Your task to perform on an android device: check android version Image 0: 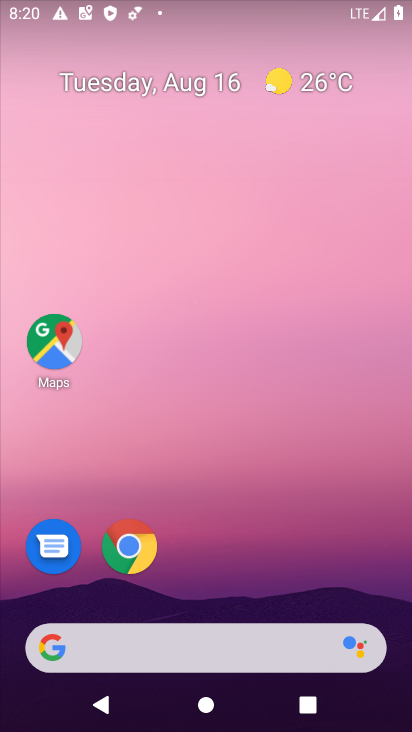
Step 0: drag from (250, 480) to (232, 9)
Your task to perform on an android device: check android version Image 1: 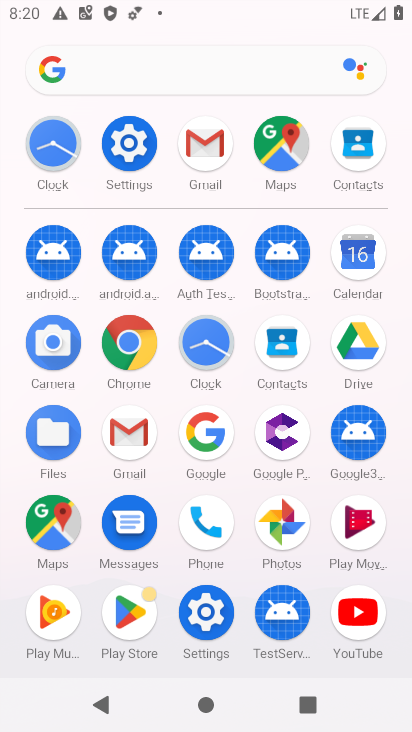
Step 1: click (132, 138)
Your task to perform on an android device: check android version Image 2: 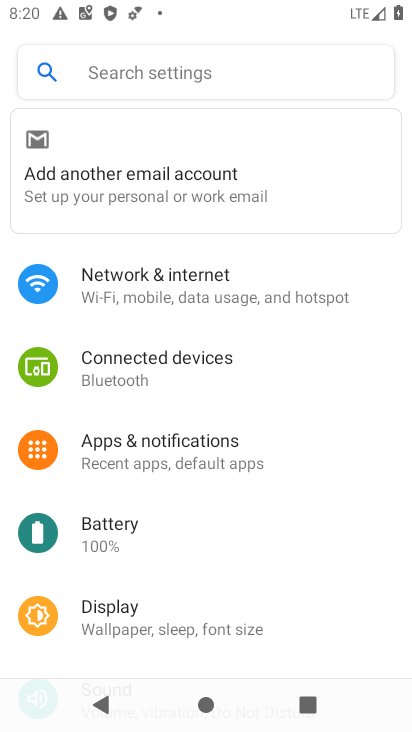
Step 2: drag from (208, 487) to (246, 7)
Your task to perform on an android device: check android version Image 3: 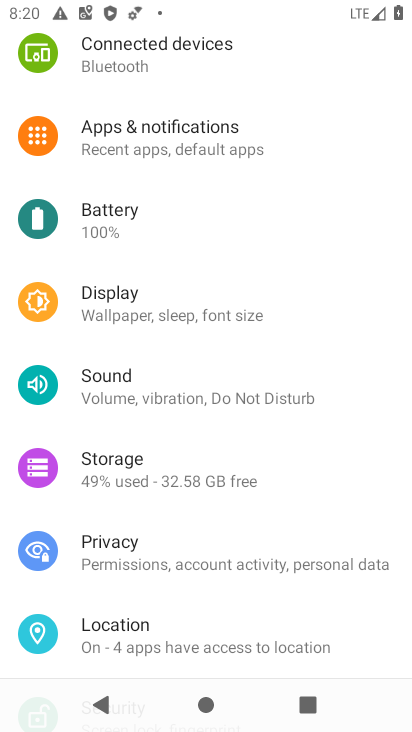
Step 3: drag from (220, 471) to (246, 5)
Your task to perform on an android device: check android version Image 4: 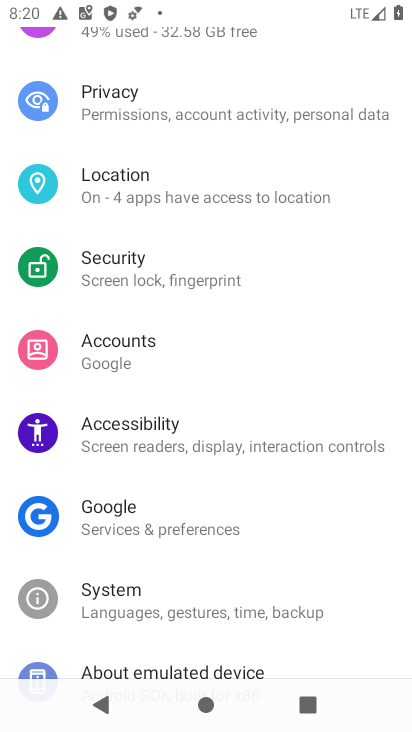
Step 4: drag from (178, 563) to (200, 310)
Your task to perform on an android device: check android version Image 5: 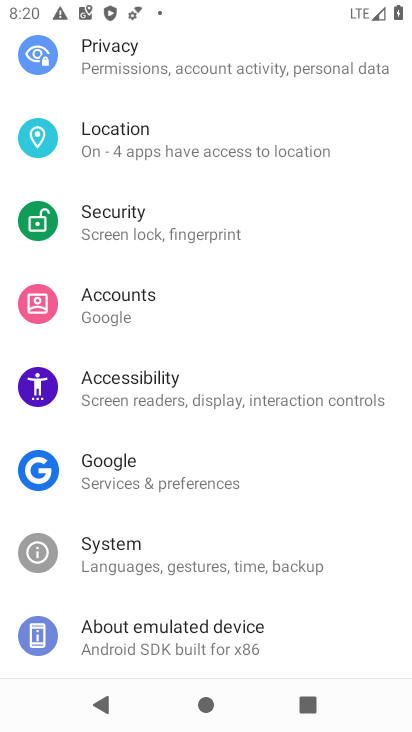
Step 5: click (179, 636)
Your task to perform on an android device: check android version Image 6: 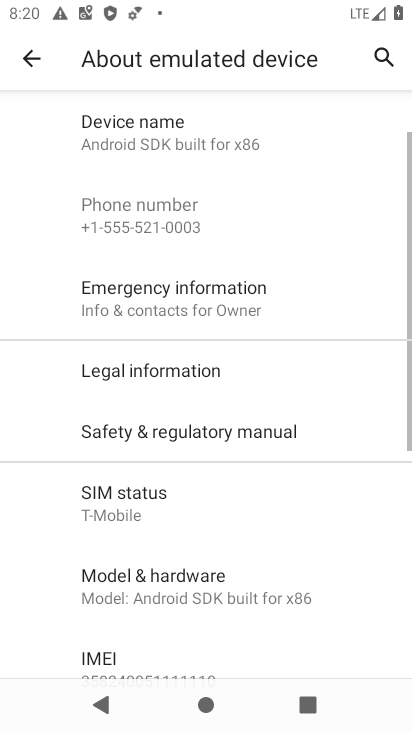
Step 6: drag from (198, 505) to (203, 63)
Your task to perform on an android device: check android version Image 7: 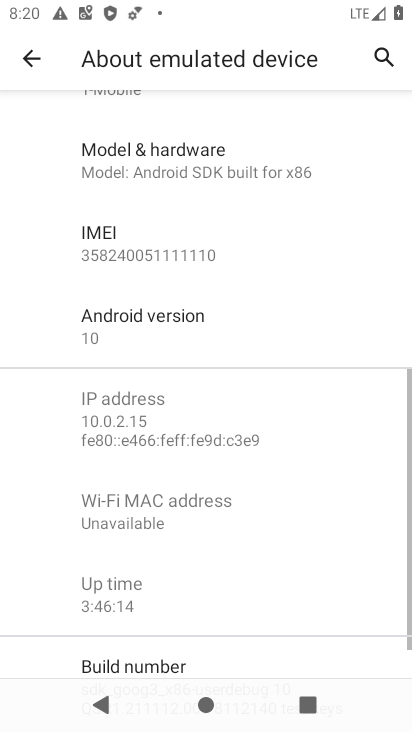
Step 7: click (161, 334)
Your task to perform on an android device: check android version Image 8: 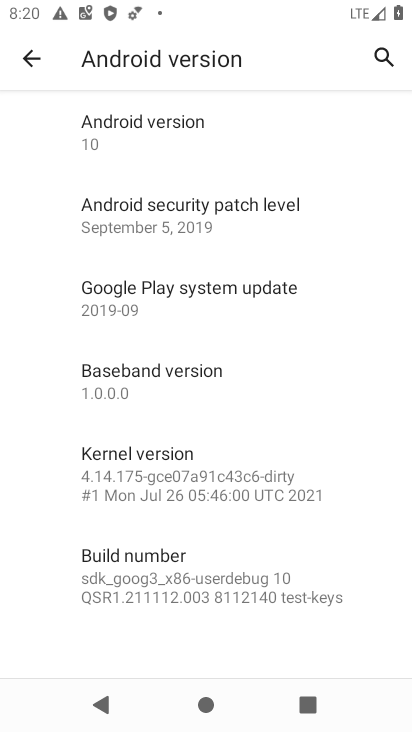
Step 8: task complete